Your task to perform on an android device: turn off location Image 0: 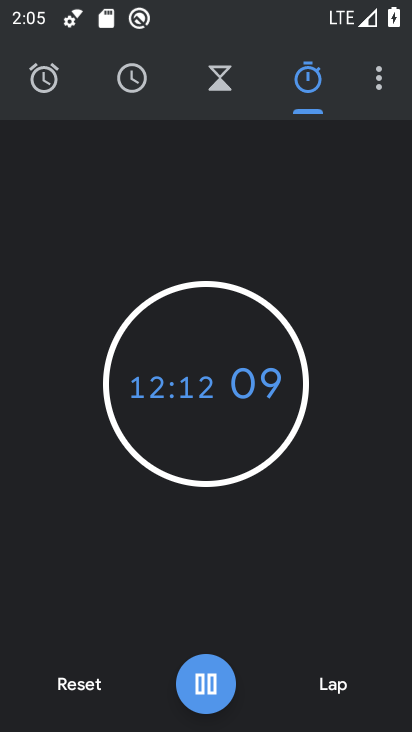
Step 0: press home button
Your task to perform on an android device: turn off location Image 1: 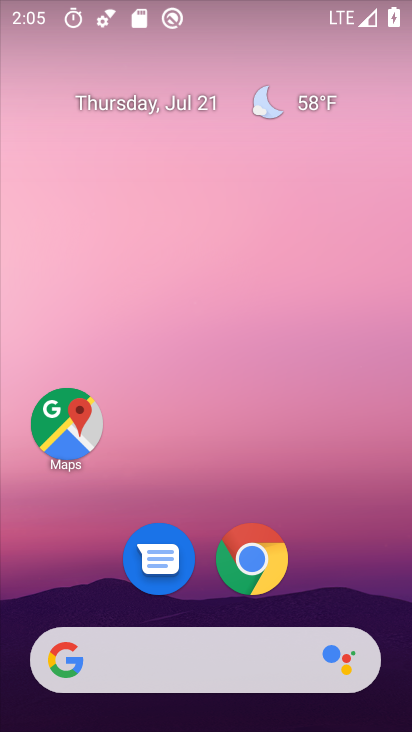
Step 1: drag from (331, 569) to (354, 77)
Your task to perform on an android device: turn off location Image 2: 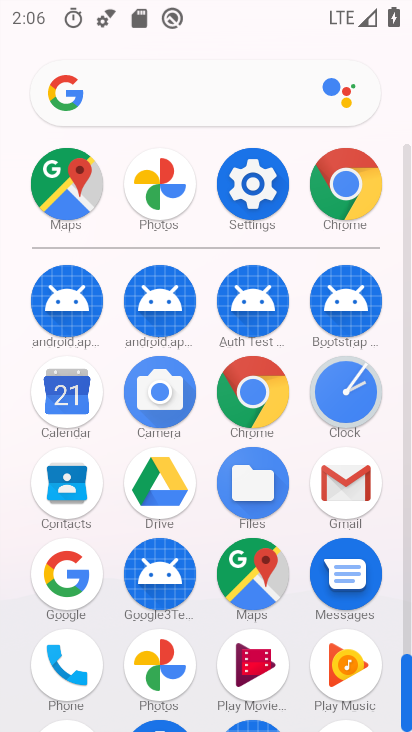
Step 2: click (269, 192)
Your task to perform on an android device: turn off location Image 3: 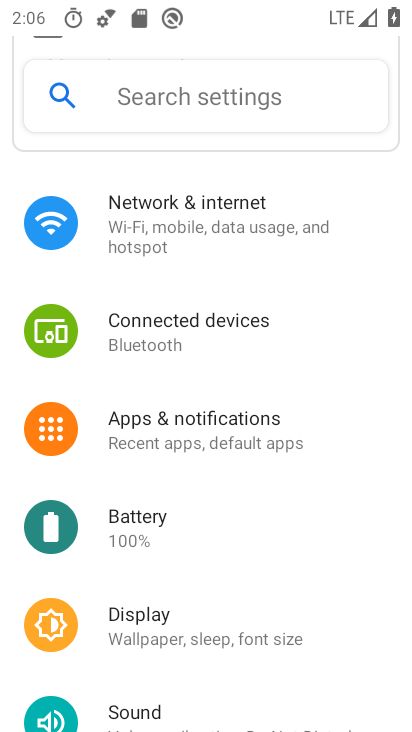
Step 3: drag from (330, 526) to (339, 431)
Your task to perform on an android device: turn off location Image 4: 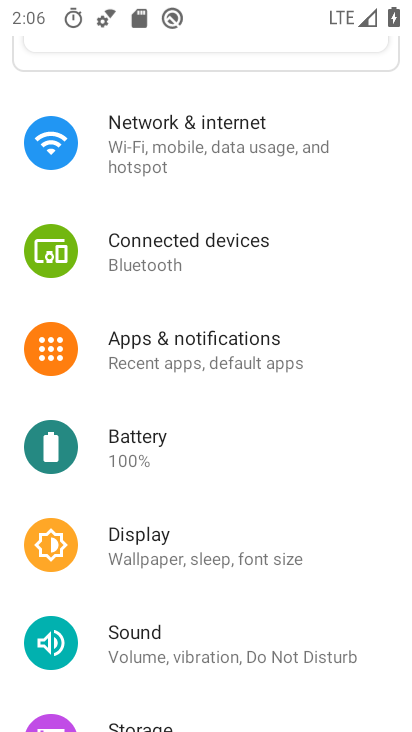
Step 4: drag from (348, 561) to (361, 478)
Your task to perform on an android device: turn off location Image 5: 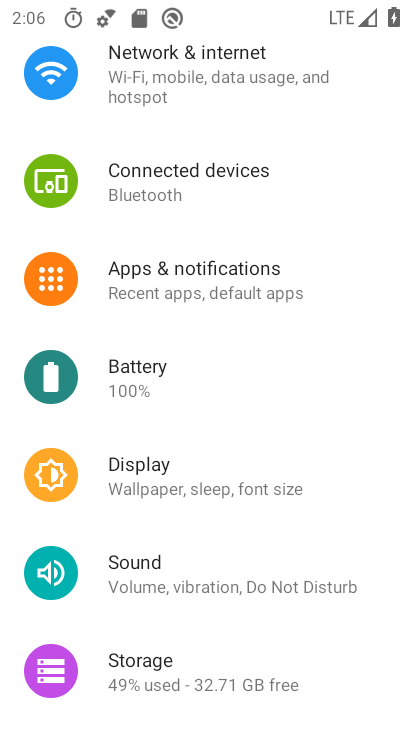
Step 5: drag from (364, 538) to (364, 447)
Your task to perform on an android device: turn off location Image 6: 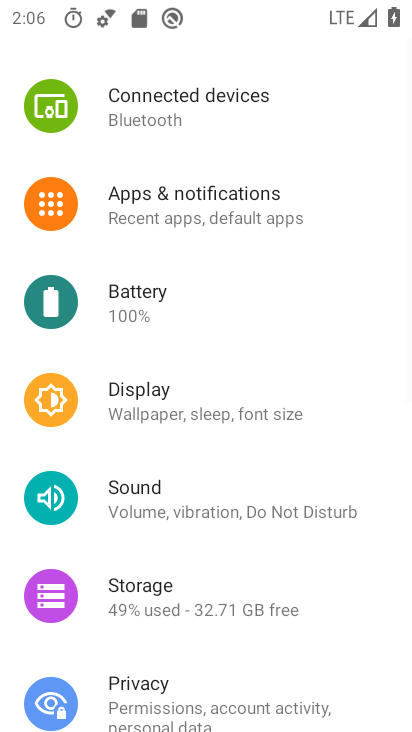
Step 6: drag from (365, 545) to (367, 454)
Your task to perform on an android device: turn off location Image 7: 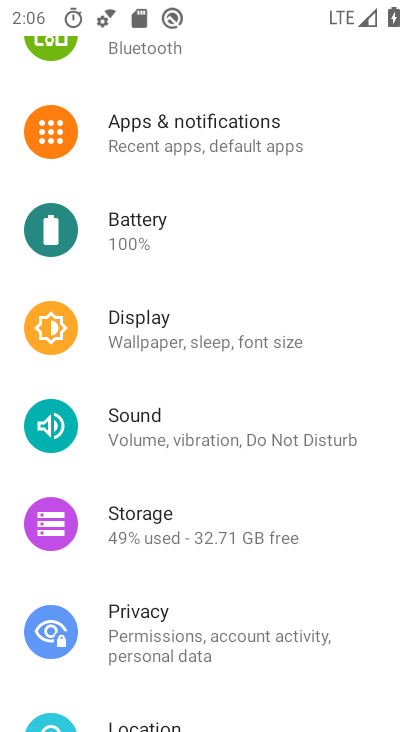
Step 7: drag from (364, 541) to (364, 441)
Your task to perform on an android device: turn off location Image 8: 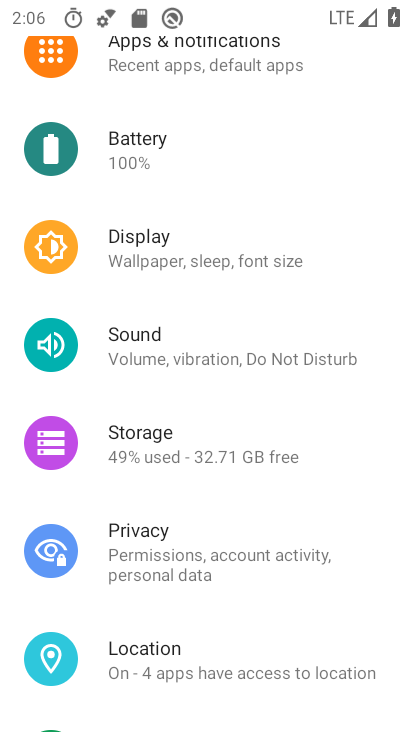
Step 8: drag from (363, 529) to (363, 444)
Your task to perform on an android device: turn off location Image 9: 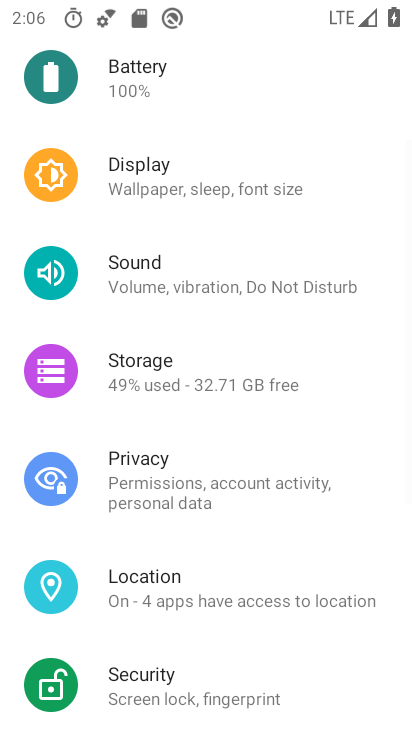
Step 9: drag from (354, 538) to (354, 449)
Your task to perform on an android device: turn off location Image 10: 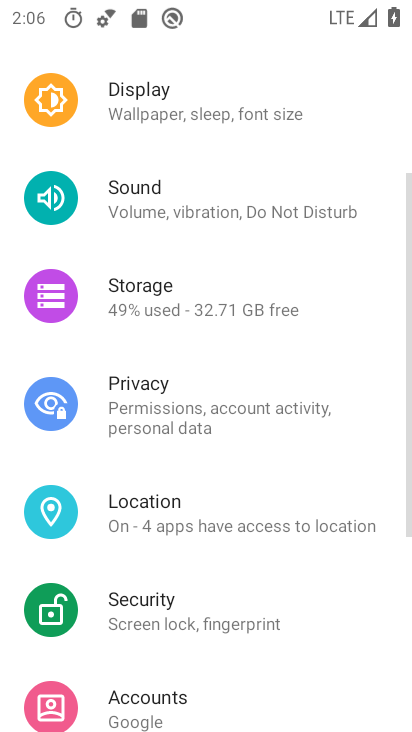
Step 10: drag from (346, 575) to (346, 487)
Your task to perform on an android device: turn off location Image 11: 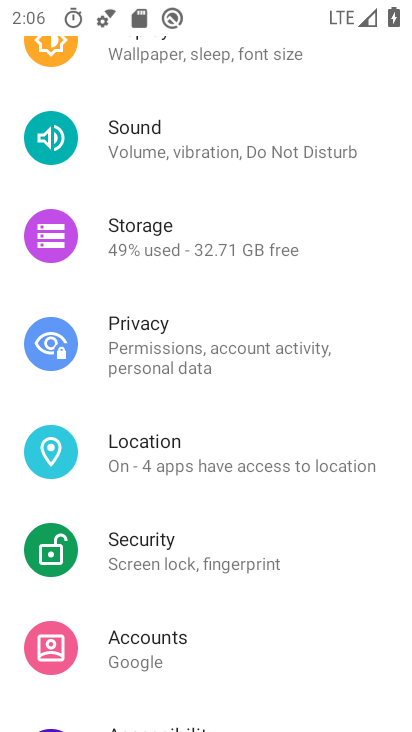
Step 11: drag from (340, 586) to (340, 499)
Your task to perform on an android device: turn off location Image 12: 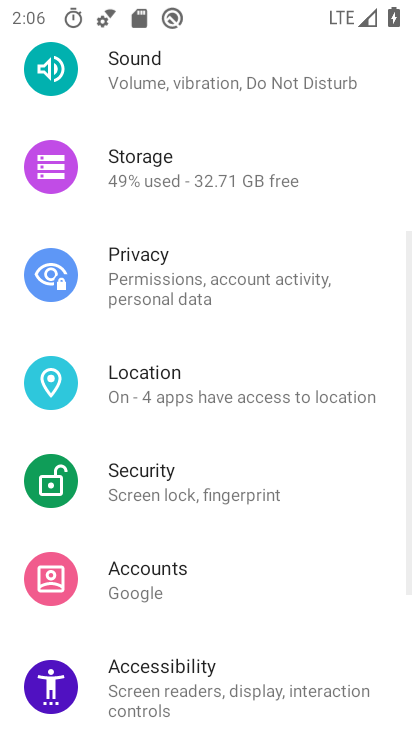
Step 12: drag from (340, 584) to (336, 500)
Your task to perform on an android device: turn off location Image 13: 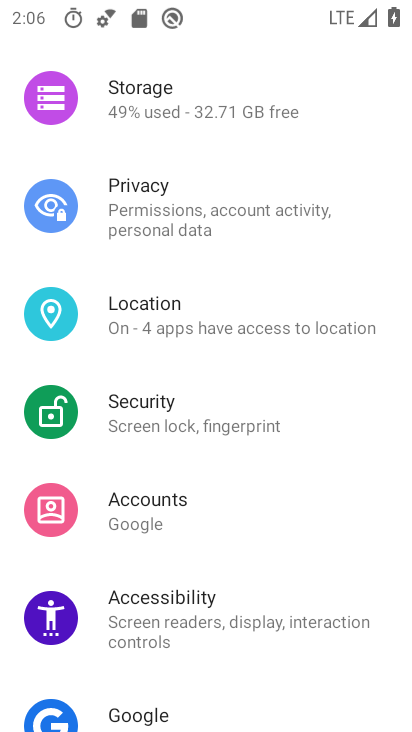
Step 13: drag from (333, 543) to (335, 460)
Your task to perform on an android device: turn off location Image 14: 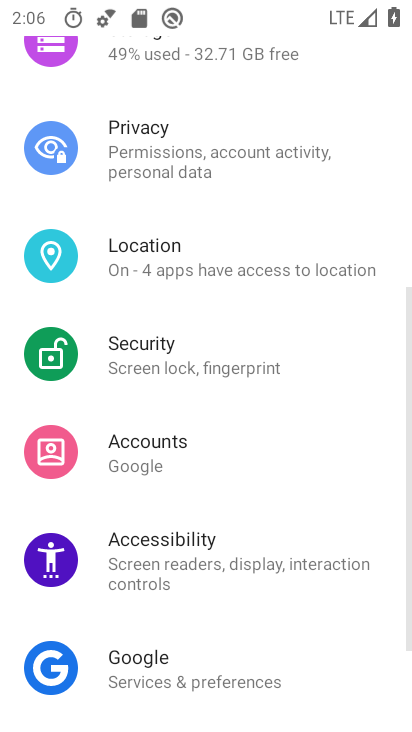
Step 14: drag from (354, 598) to (363, 503)
Your task to perform on an android device: turn off location Image 15: 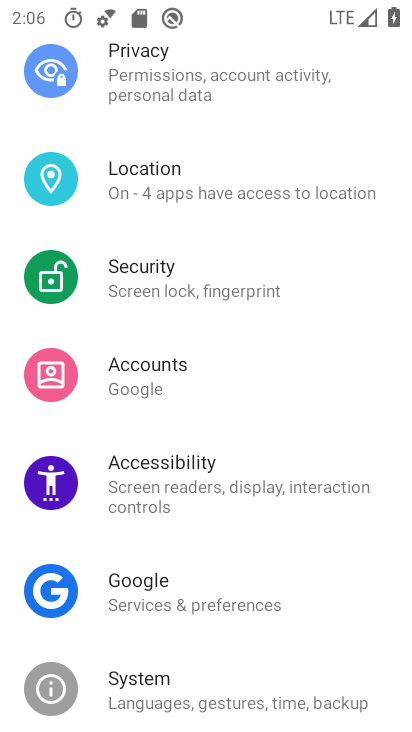
Step 15: drag from (361, 427) to (363, 520)
Your task to perform on an android device: turn off location Image 16: 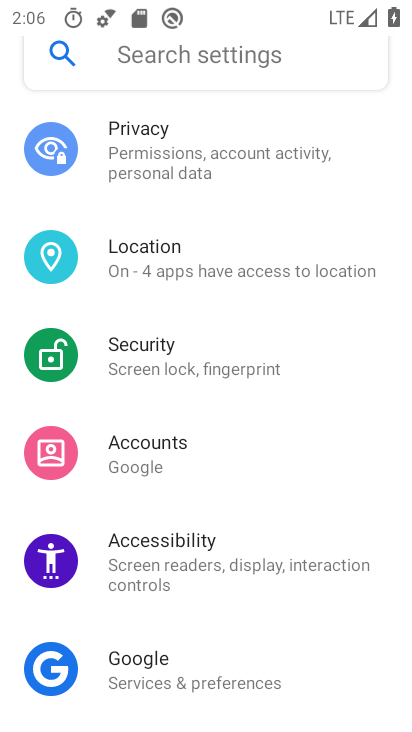
Step 16: drag from (353, 366) to (346, 464)
Your task to perform on an android device: turn off location Image 17: 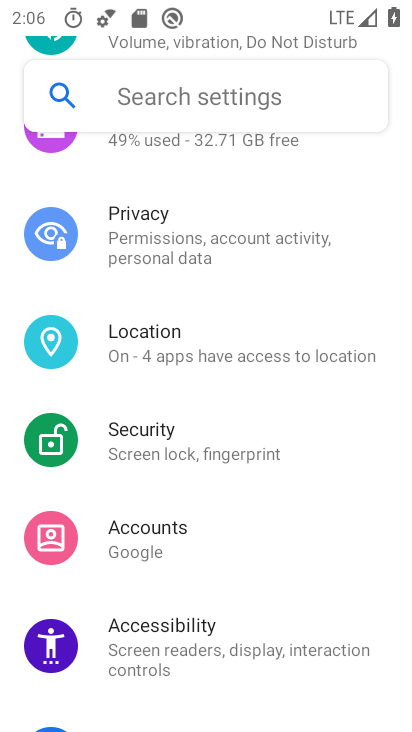
Step 17: drag from (346, 394) to (347, 496)
Your task to perform on an android device: turn off location Image 18: 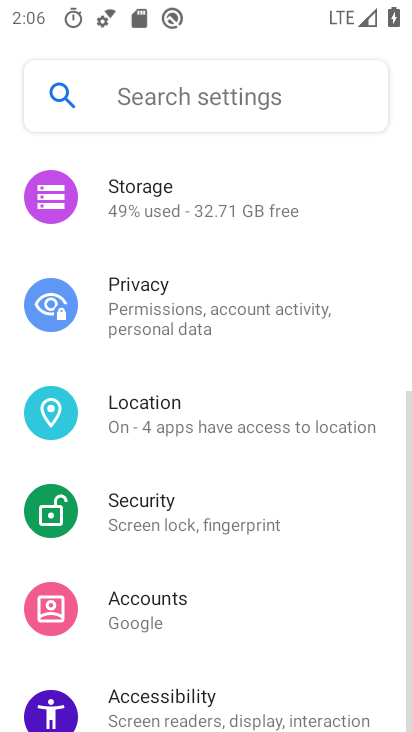
Step 18: click (272, 421)
Your task to perform on an android device: turn off location Image 19: 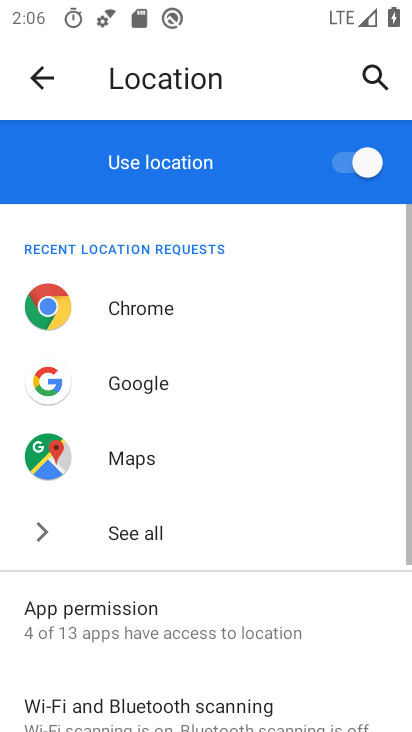
Step 19: drag from (286, 590) to (292, 365)
Your task to perform on an android device: turn off location Image 20: 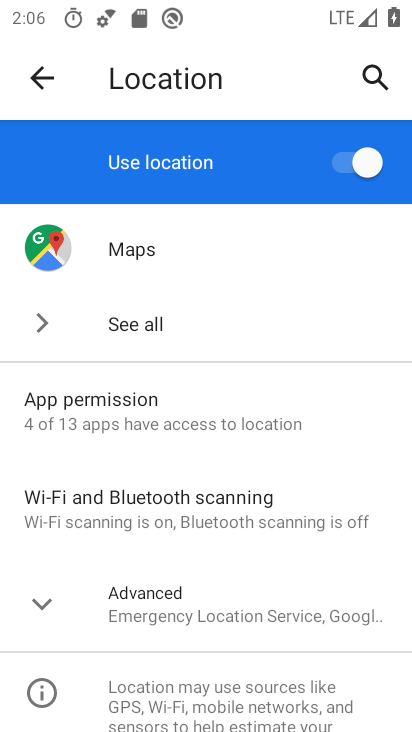
Step 20: drag from (278, 555) to (280, 411)
Your task to perform on an android device: turn off location Image 21: 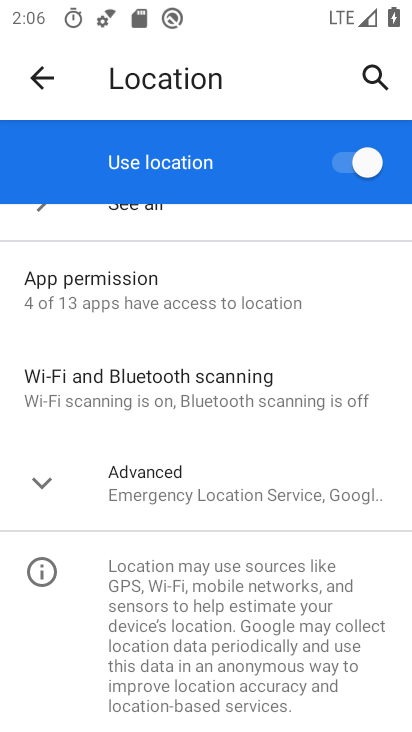
Step 21: drag from (307, 322) to (302, 460)
Your task to perform on an android device: turn off location Image 22: 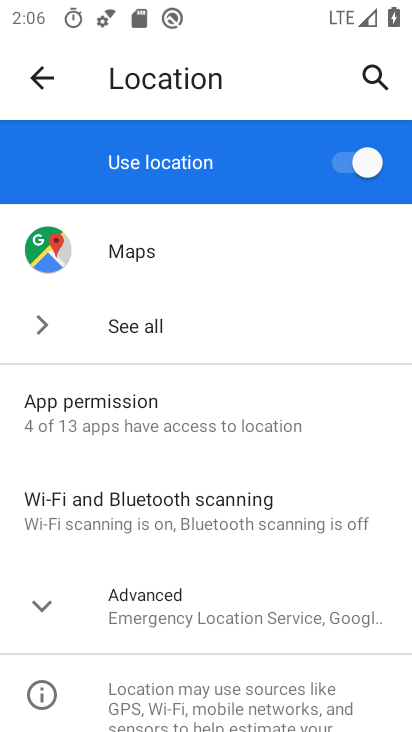
Step 22: drag from (305, 304) to (302, 409)
Your task to perform on an android device: turn off location Image 23: 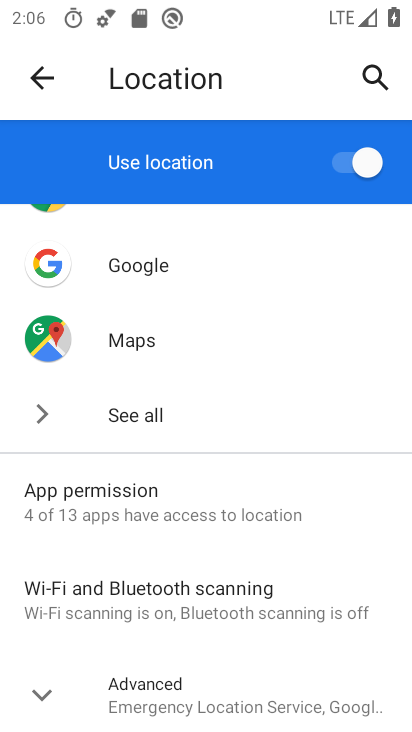
Step 23: click (339, 172)
Your task to perform on an android device: turn off location Image 24: 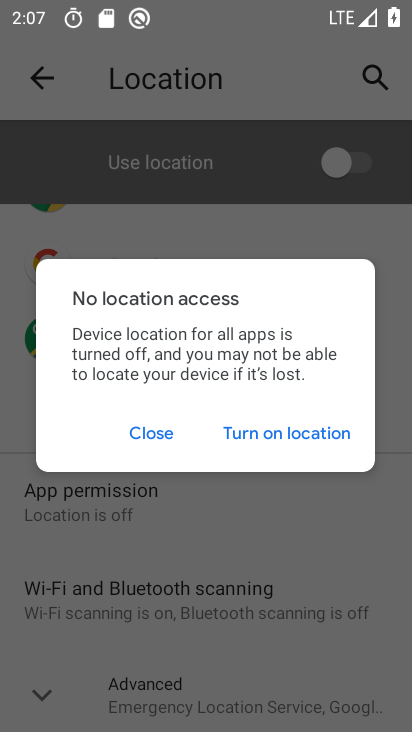
Step 24: task complete